Your task to perform on an android device: Open Google Chrome Image 0: 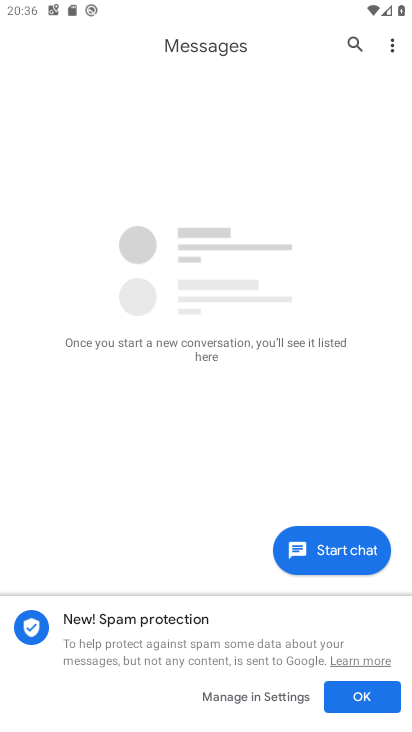
Step 0: press home button
Your task to perform on an android device: Open Google Chrome Image 1: 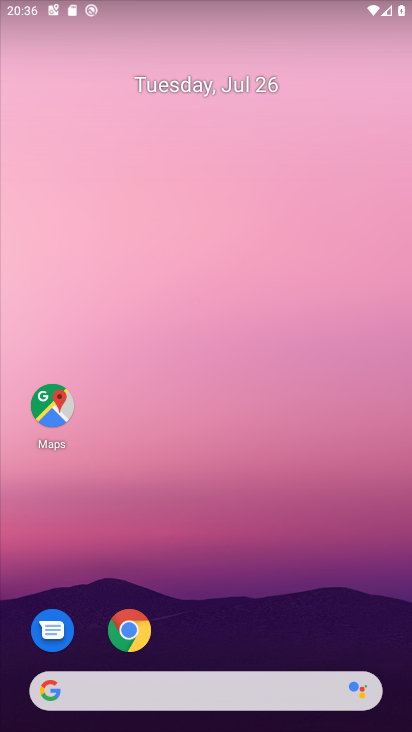
Step 1: drag from (371, 643) to (307, 68)
Your task to perform on an android device: Open Google Chrome Image 2: 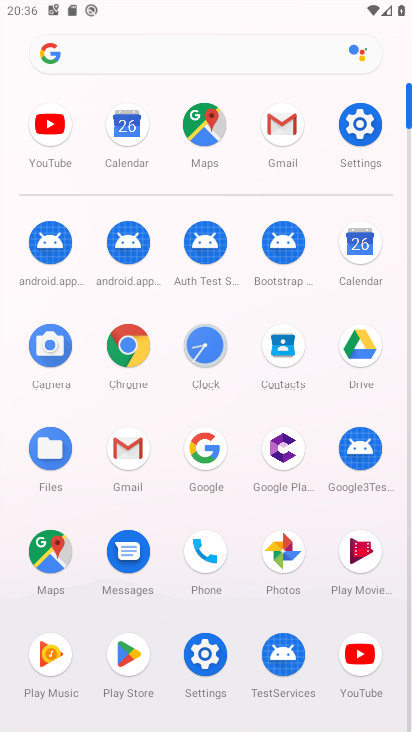
Step 2: click (130, 337)
Your task to perform on an android device: Open Google Chrome Image 3: 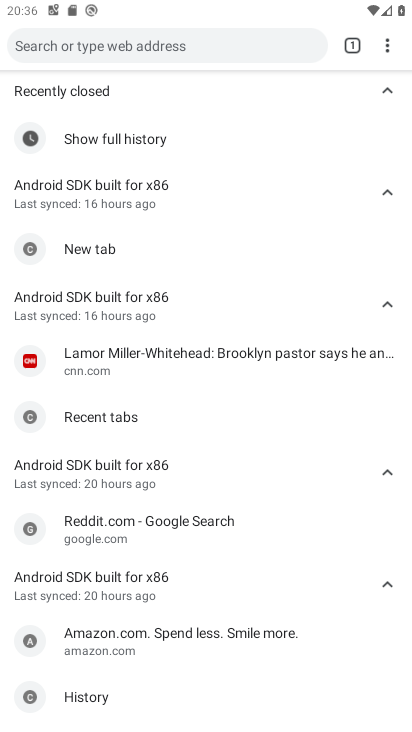
Step 3: task complete